Your task to perform on an android device: Search for Italian restaurants on Maps Image 0: 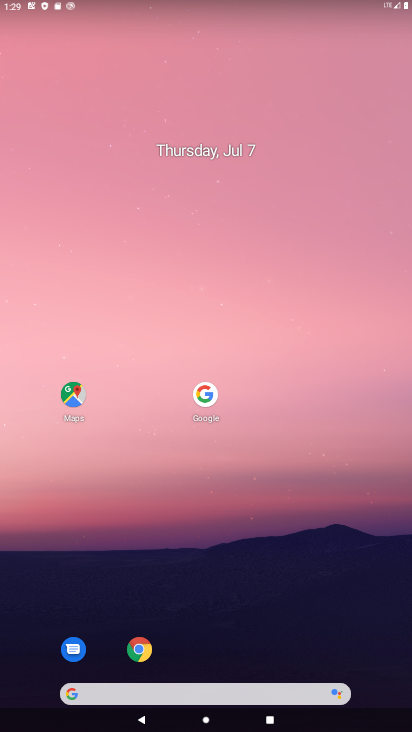
Step 0: click (73, 390)
Your task to perform on an android device: Search for Italian restaurants on Maps Image 1: 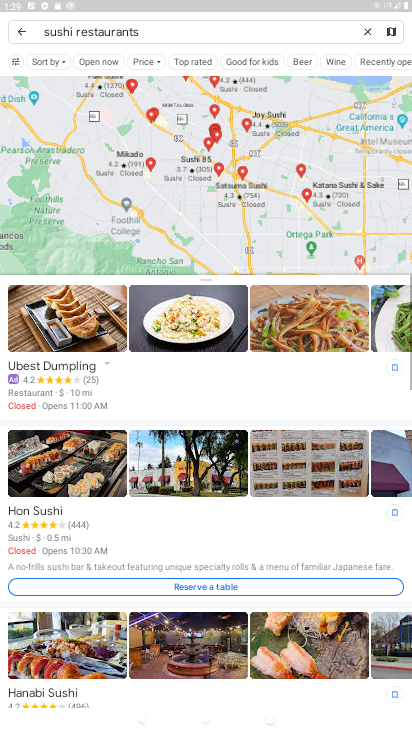
Step 1: click (144, 33)
Your task to perform on an android device: Search for Italian restaurants on Maps Image 2: 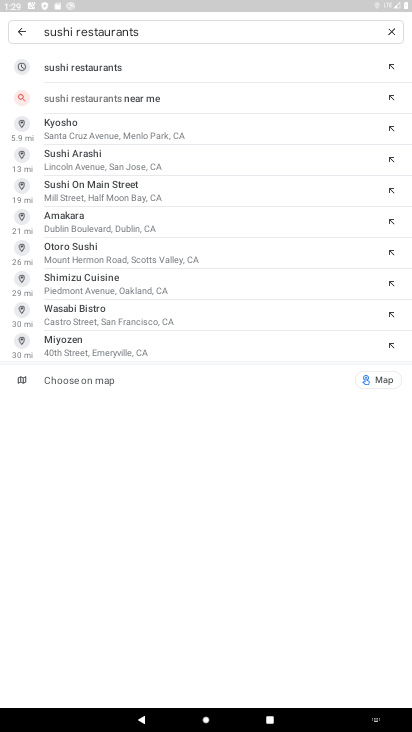
Step 2: click (392, 31)
Your task to perform on an android device: Search for Italian restaurants on Maps Image 3: 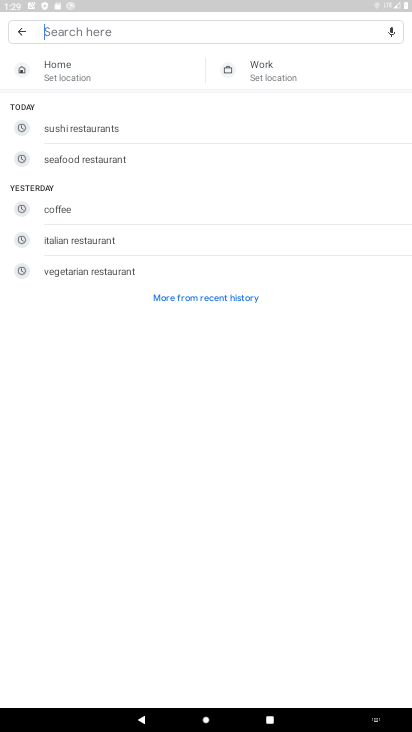
Step 3: click (90, 243)
Your task to perform on an android device: Search for Italian restaurants on Maps Image 4: 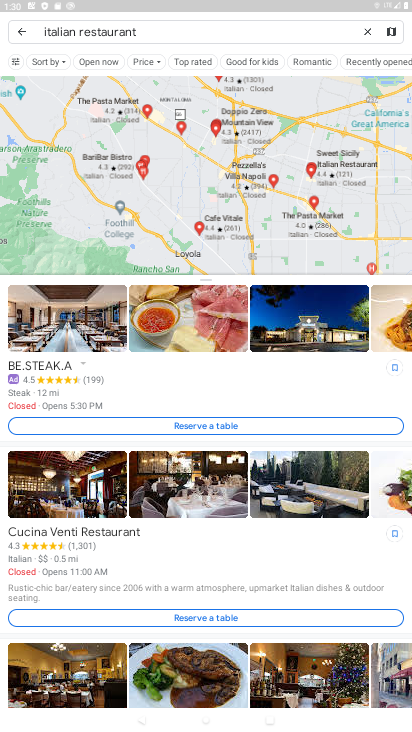
Step 4: task complete